Your task to perform on an android device: open chrome and create a bookmark for the current page Image 0: 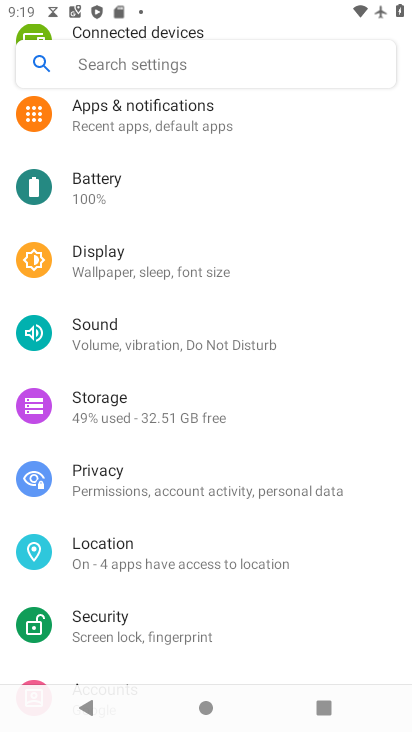
Step 0: press home button
Your task to perform on an android device: open chrome and create a bookmark for the current page Image 1: 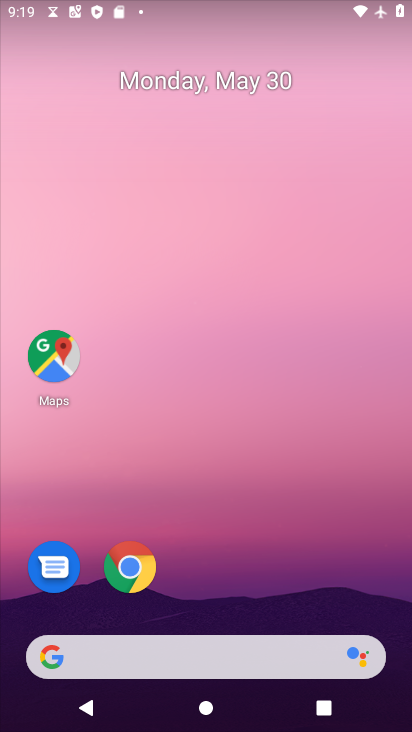
Step 1: click (141, 578)
Your task to perform on an android device: open chrome and create a bookmark for the current page Image 2: 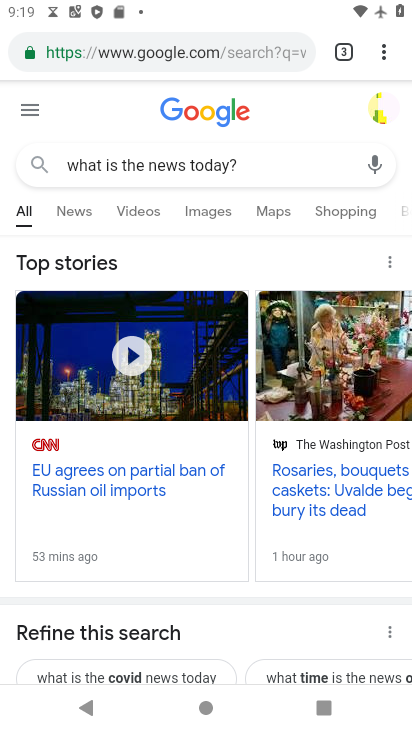
Step 2: click (392, 53)
Your task to perform on an android device: open chrome and create a bookmark for the current page Image 3: 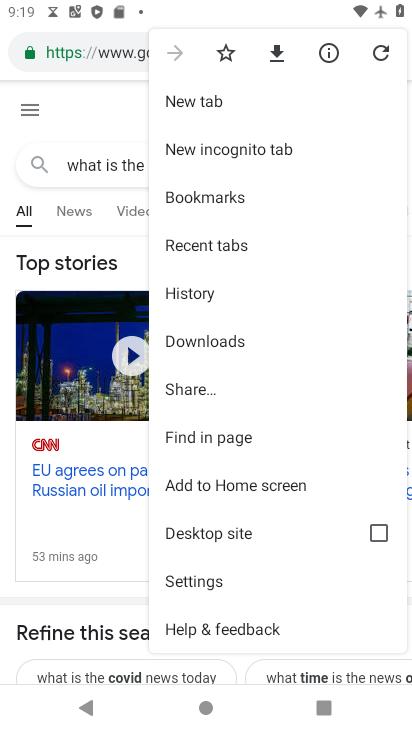
Step 3: click (228, 53)
Your task to perform on an android device: open chrome and create a bookmark for the current page Image 4: 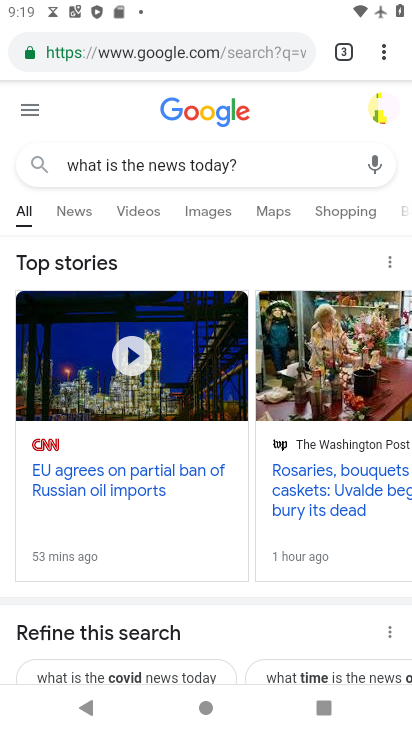
Step 4: task complete